Your task to perform on an android device: Open Youtube and go to "Your channel" Image 0: 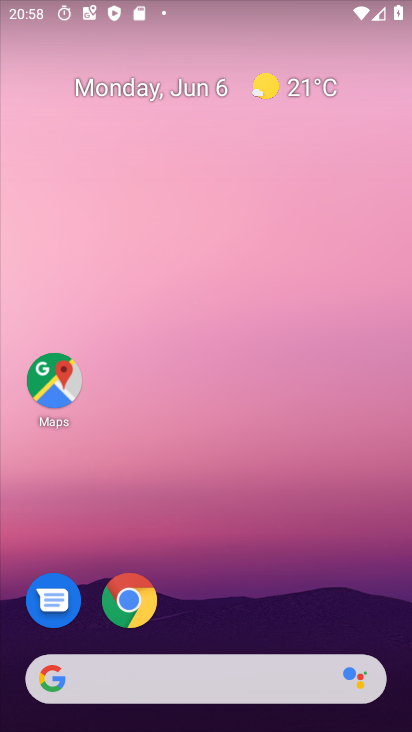
Step 0: drag from (244, 478) to (252, 28)
Your task to perform on an android device: Open Youtube and go to "Your channel" Image 1: 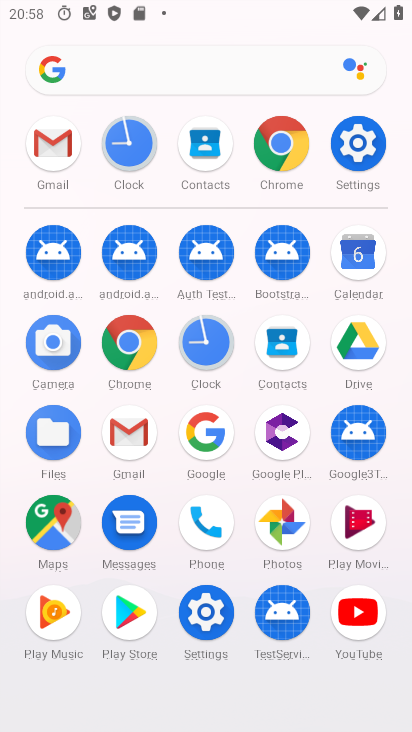
Step 1: drag from (4, 564) to (34, 214)
Your task to perform on an android device: Open Youtube and go to "Your channel" Image 2: 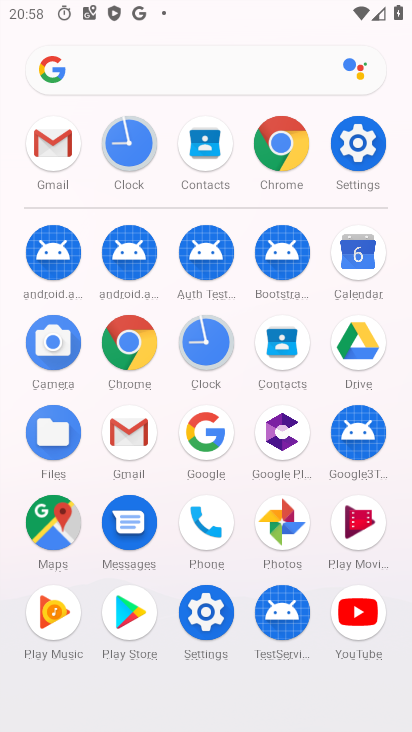
Step 2: click (354, 610)
Your task to perform on an android device: Open Youtube and go to "Your channel" Image 3: 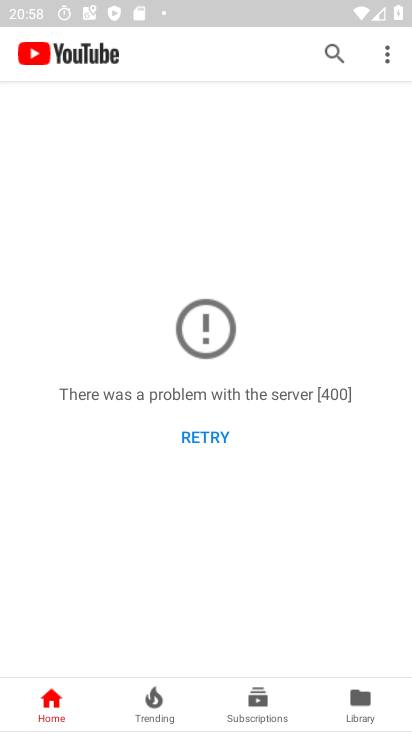
Step 3: click (357, 711)
Your task to perform on an android device: Open Youtube and go to "Your channel" Image 4: 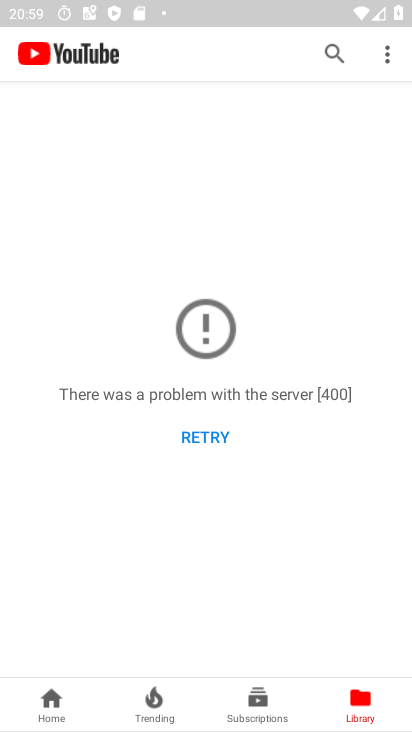
Step 4: task complete